Your task to perform on an android device: check android version Image 0: 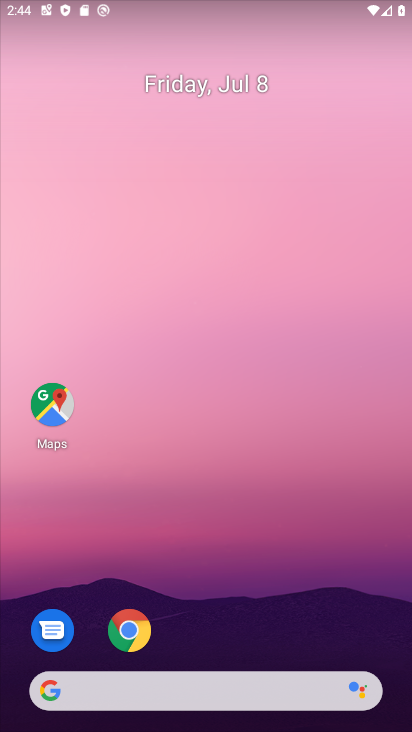
Step 0: drag from (306, 614) to (192, 92)
Your task to perform on an android device: check android version Image 1: 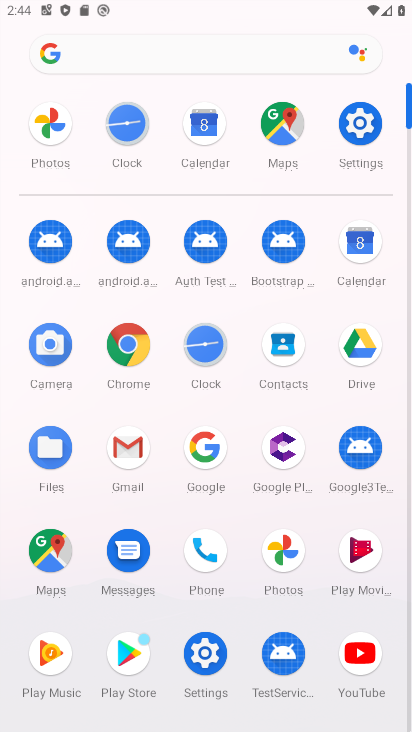
Step 1: click (358, 119)
Your task to perform on an android device: check android version Image 2: 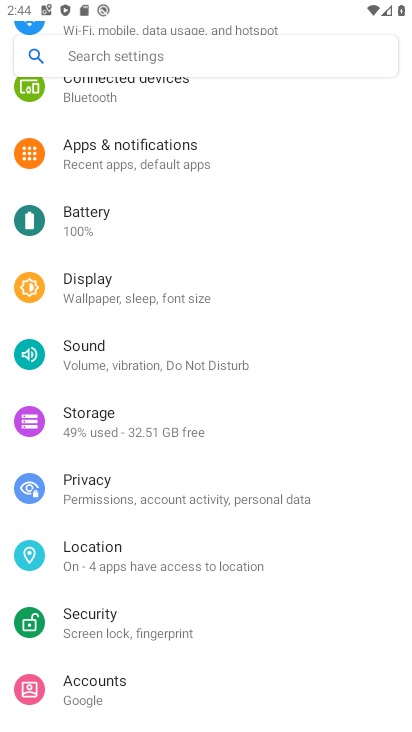
Step 2: drag from (233, 709) to (195, 240)
Your task to perform on an android device: check android version Image 3: 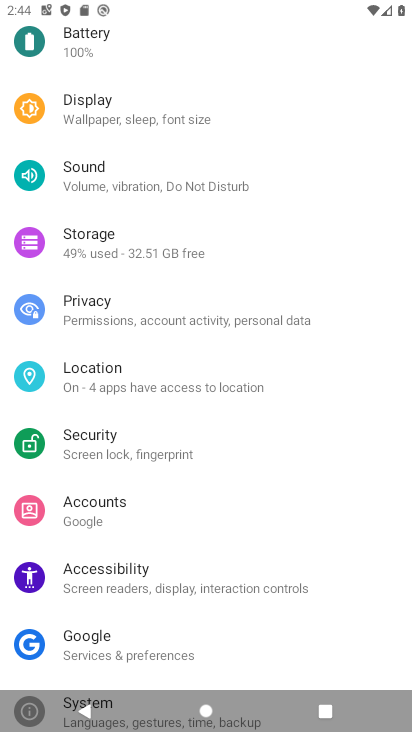
Step 3: drag from (245, 602) to (220, 230)
Your task to perform on an android device: check android version Image 4: 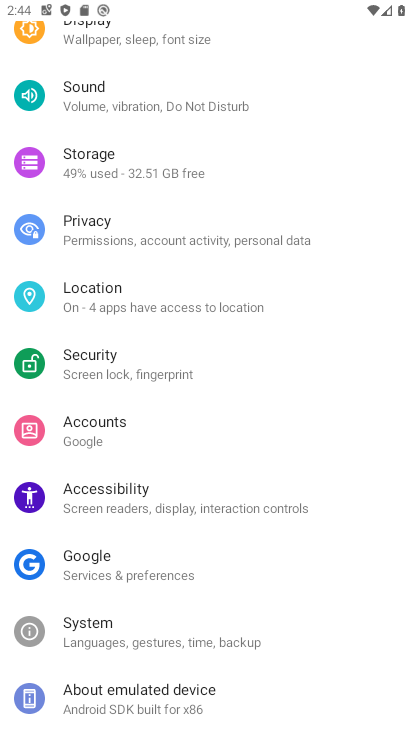
Step 4: click (222, 686)
Your task to perform on an android device: check android version Image 5: 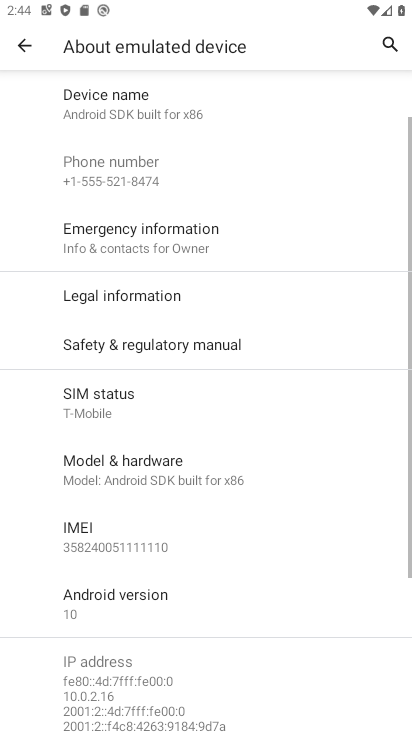
Step 5: drag from (217, 689) to (164, 203)
Your task to perform on an android device: check android version Image 6: 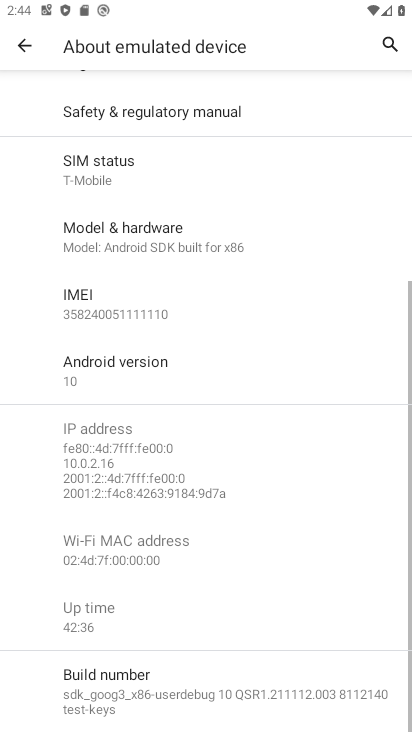
Step 6: click (145, 360)
Your task to perform on an android device: check android version Image 7: 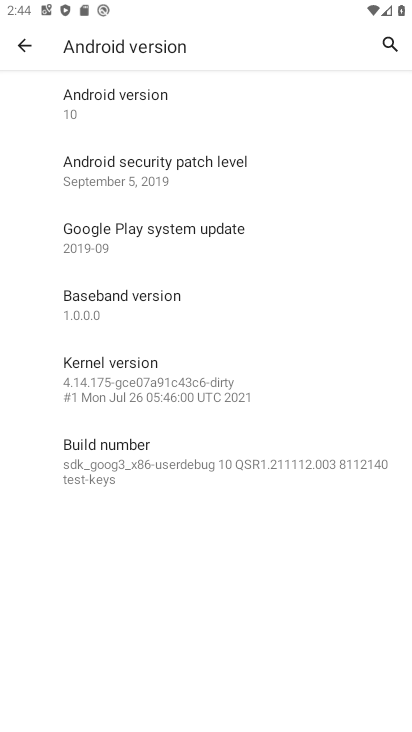
Step 7: task complete